Your task to perform on an android device: change the clock display to show seconds Image 0: 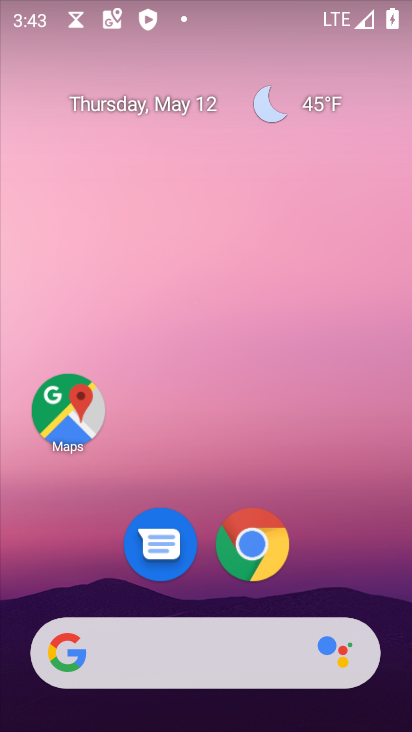
Step 0: drag from (314, 545) to (226, 90)
Your task to perform on an android device: change the clock display to show seconds Image 1: 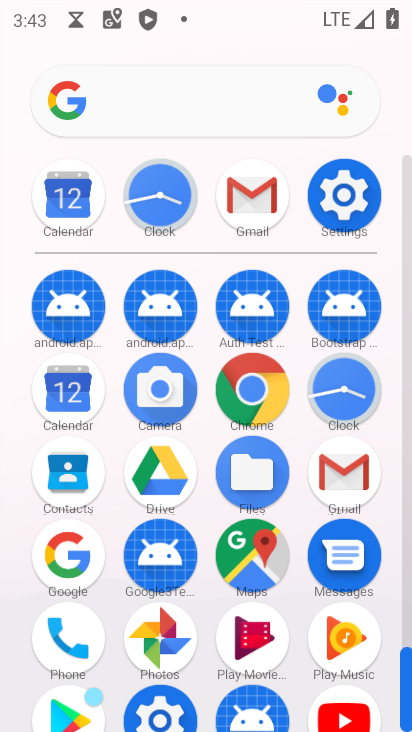
Step 1: click (330, 403)
Your task to perform on an android device: change the clock display to show seconds Image 2: 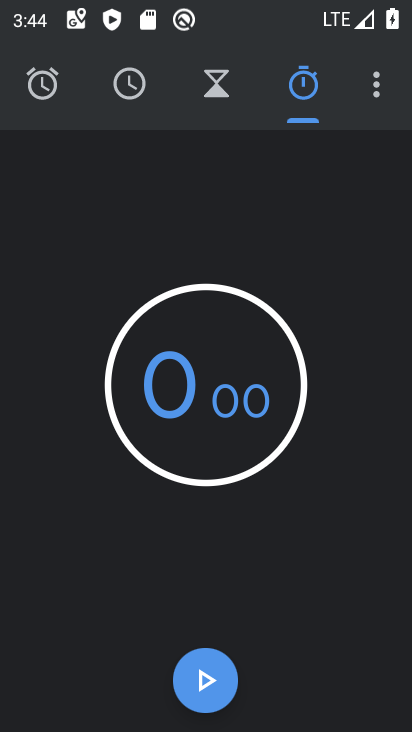
Step 2: click (353, 88)
Your task to perform on an android device: change the clock display to show seconds Image 3: 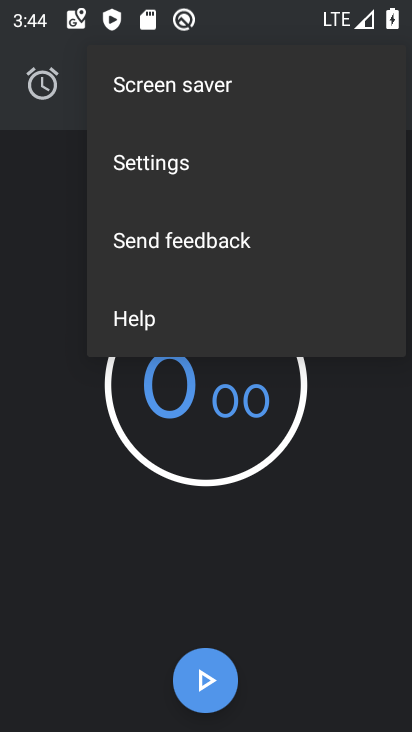
Step 3: click (244, 166)
Your task to perform on an android device: change the clock display to show seconds Image 4: 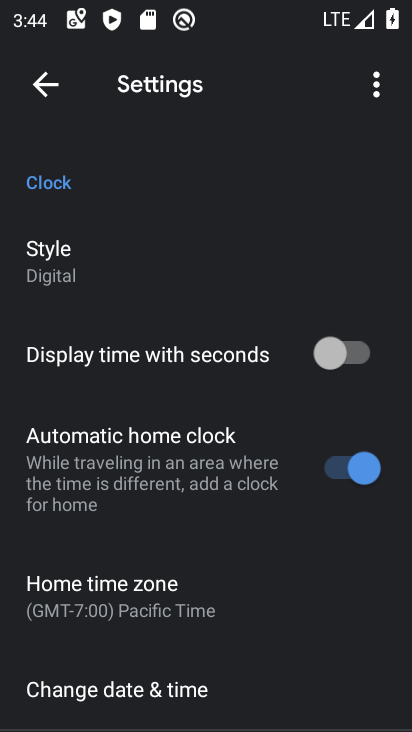
Step 4: click (338, 358)
Your task to perform on an android device: change the clock display to show seconds Image 5: 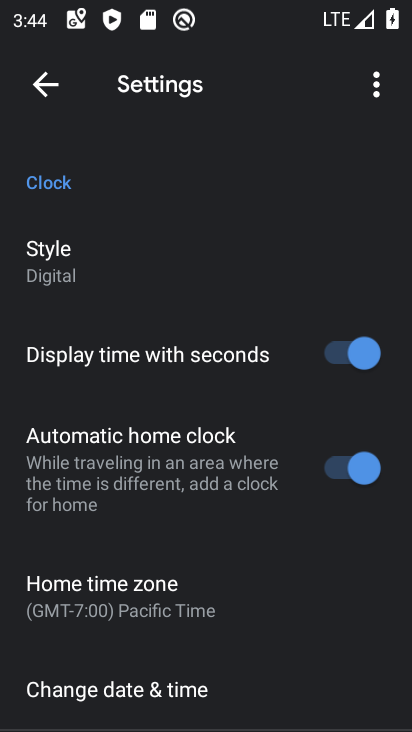
Step 5: task complete